Your task to perform on an android device: turn off location Image 0: 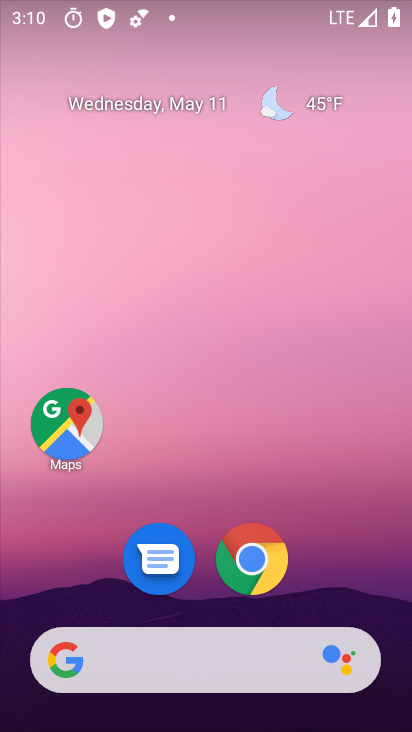
Step 0: drag from (337, 571) to (202, 155)
Your task to perform on an android device: turn off location Image 1: 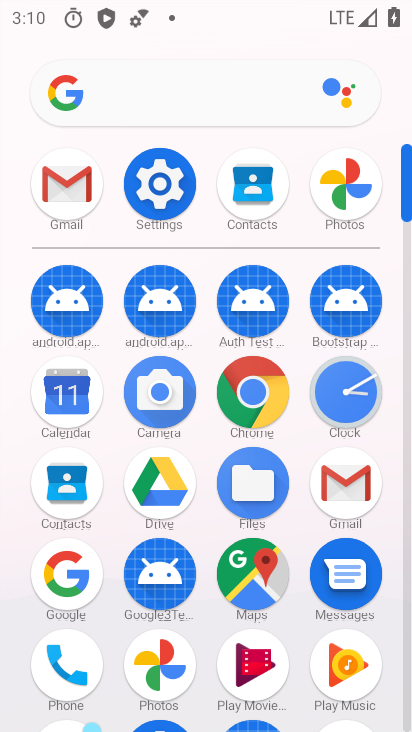
Step 1: click (162, 183)
Your task to perform on an android device: turn off location Image 2: 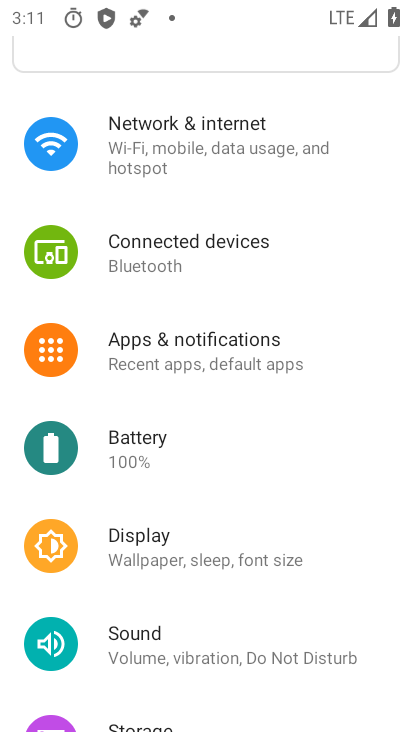
Step 2: drag from (190, 595) to (218, 186)
Your task to perform on an android device: turn off location Image 3: 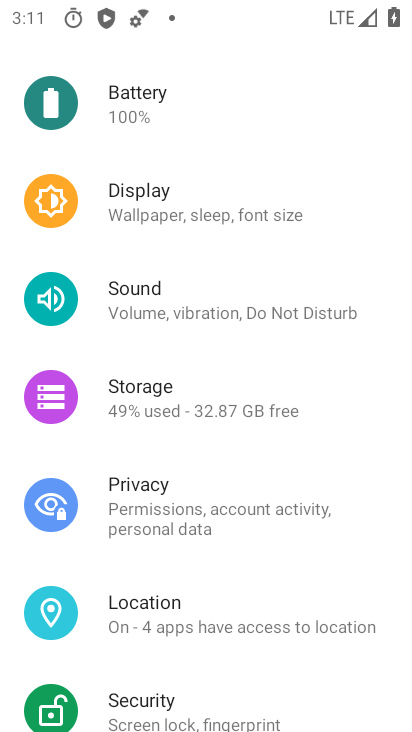
Step 3: click (210, 601)
Your task to perform on an android device: turn off location Image 4: 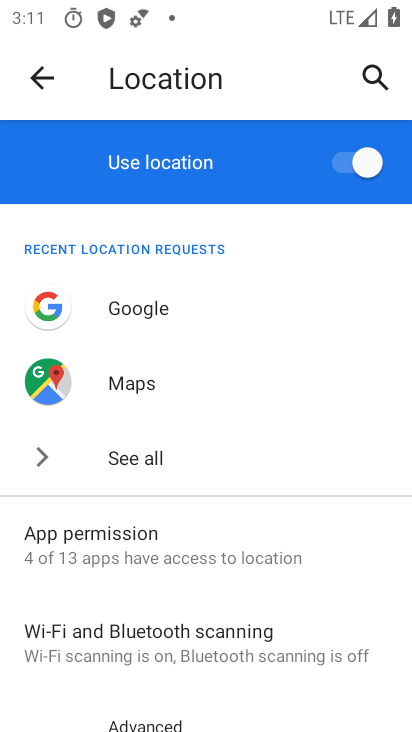
Step 4: drag from (228, 649) to (254, 319)
Your task to perform on an android device: turn off location Image 5: 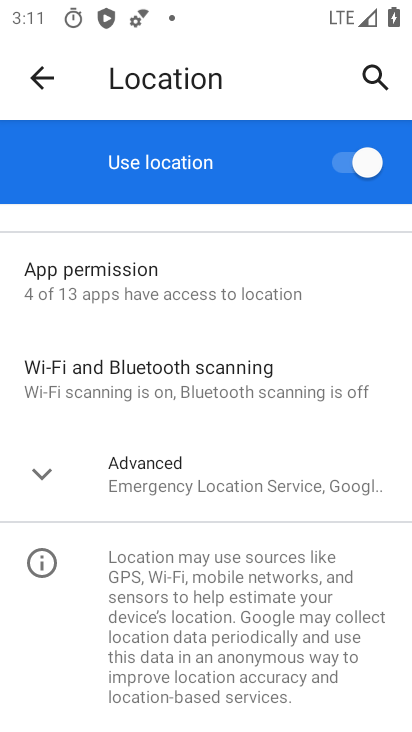
Step 5: click (353, 157)
Your task to perform on an android device: turn off location Image 6: 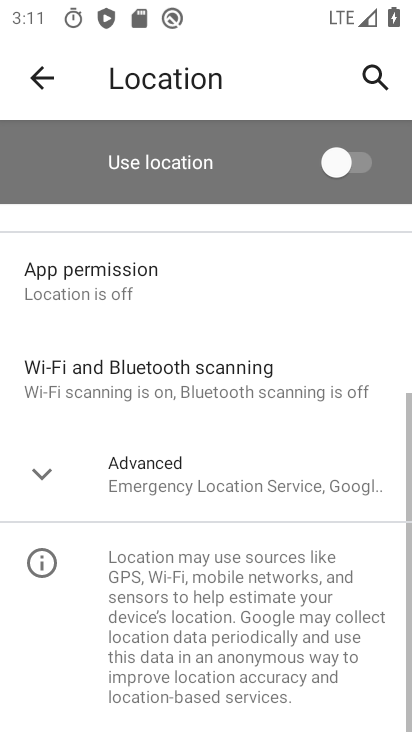
Step 6: task complete